Your task to perform on an android device: turn off notifications in google photos Image 0: 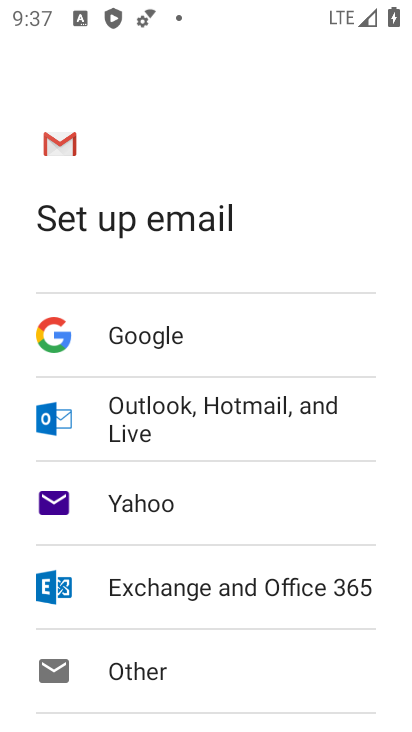
Step 0: press home button
Your task to perform on an android device: turn off notifications in google photos Image 1: 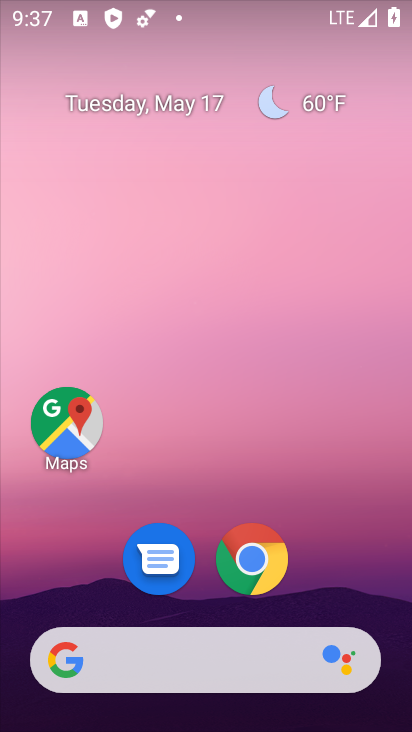
Step 1: drag from (199, 599) to (215, 220)
Your task to perform on an android device: turn off notifications in google photos Image 2: 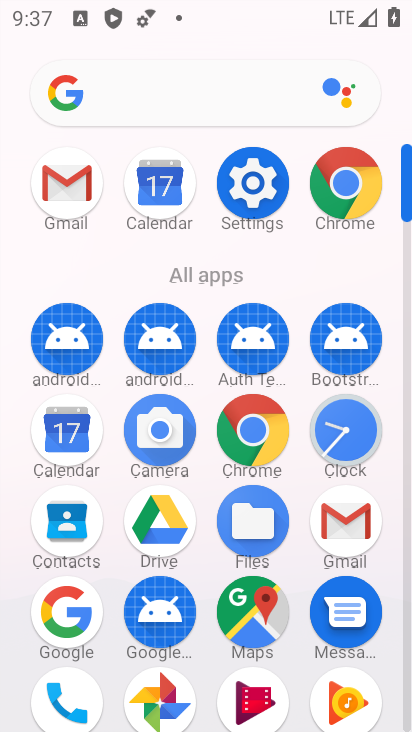
Step 2: click (164, 713)
Your task to perform on an android device: turn off notifications in google photos Image 3: 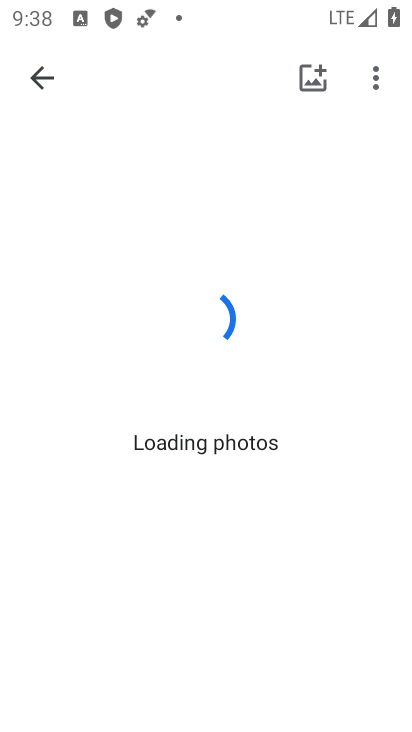
Step 3: click (45, 57)
Your task to perform on an android device: turn off notifications in google photos Image 4: 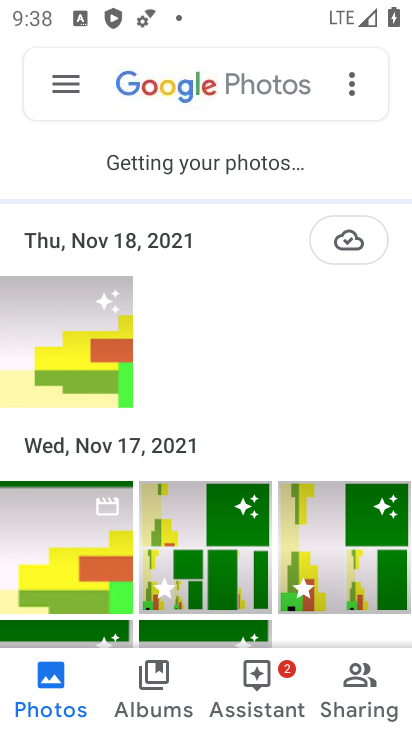
Step 4: click (69, 78)
Your task to perform on an android device: turn off notifications in google photos Image 5: 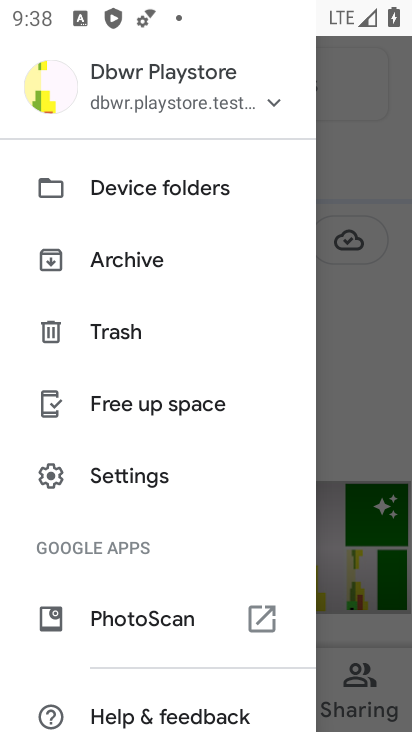
Step 5: drag from (121, 627) to (166, 388)
Your task to perform on an android device: turn off notifications in google photos Image 6: 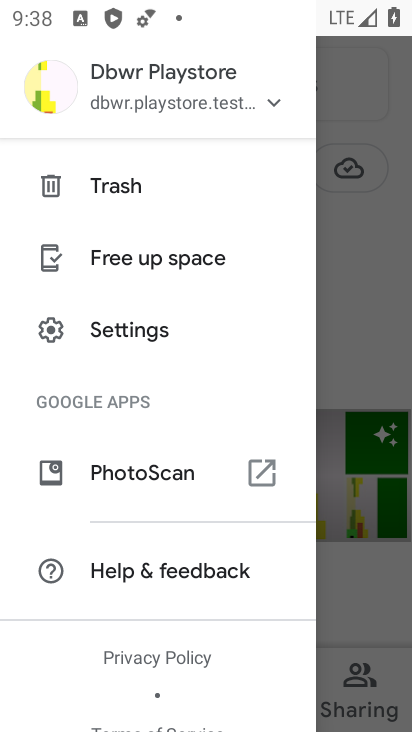
Step 6: drag from (155, 544) to (173, 355)
Your task to perform on an android device: turn off notifications in google photos Image 7: 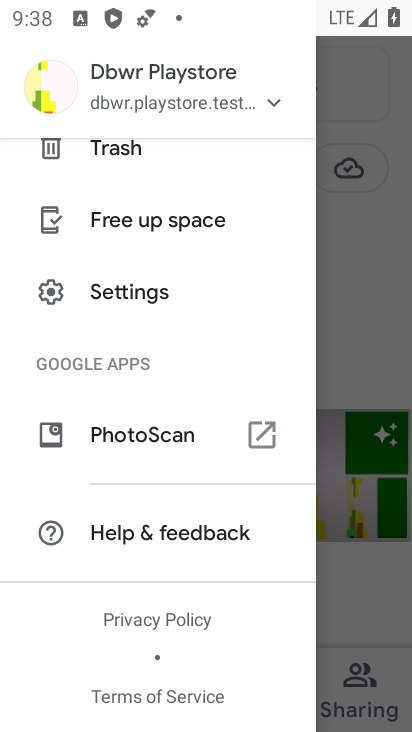
Step 7: click (140, 287)
Your task to perform on an android device: turn off notifications in google photos Image 8: 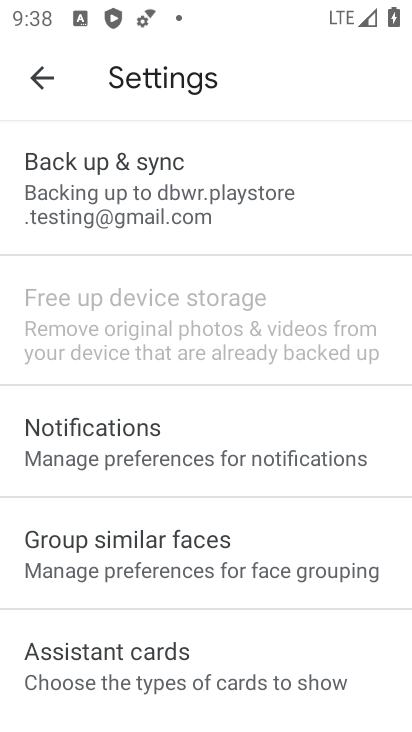
Step 8: drag from (191, 602) to (232, 265)
Your task to perform on an android device: turn off notifications in google photos Image 9: 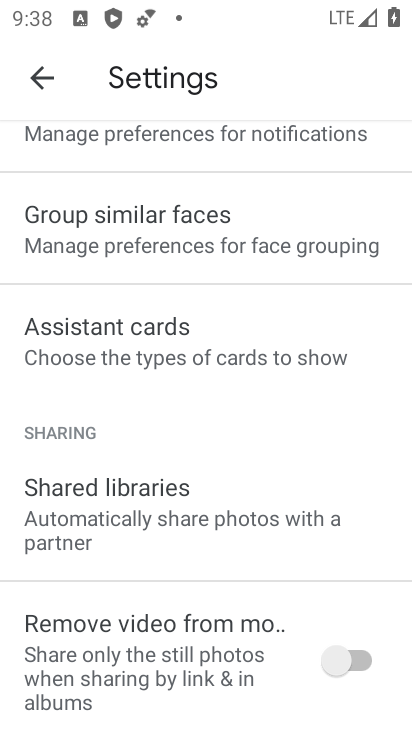
Step 9: drag from (170, 571) to (222, 239)
Your task to perform on an android device: turn off notifications in google photos Image 10: 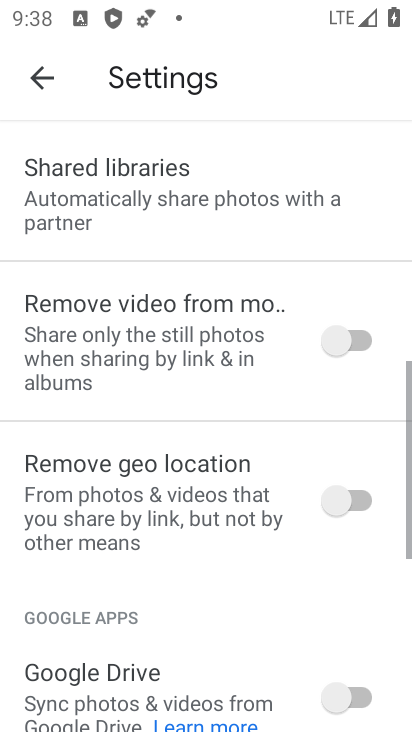
Step 10: drag from (172, 585) to (199, 349)
Your task to perform on an android device: turn off notifications in google photos Image 11: 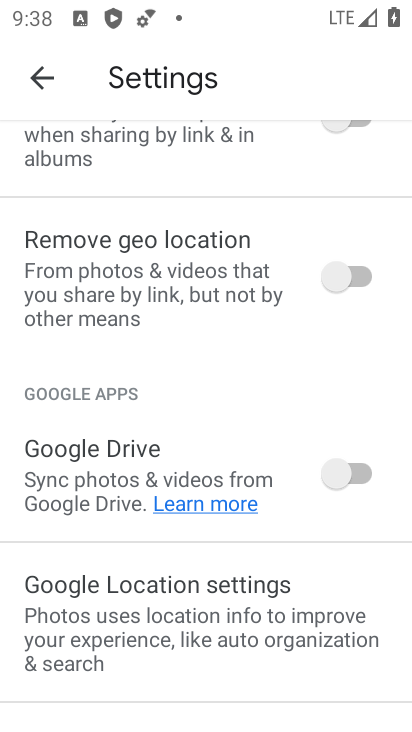
Step 11: drag from (203, 471) to (244, 292)
Your task to perform on an android device: turn off notifications in google photos Image 12: 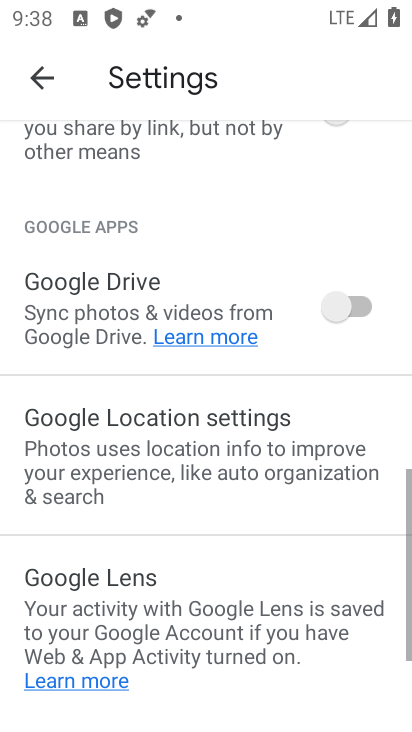
Step 12: drag from (197, 278) to (200, 481)
Your task to perform on an android device: turn off notifications in google photos Image 13: 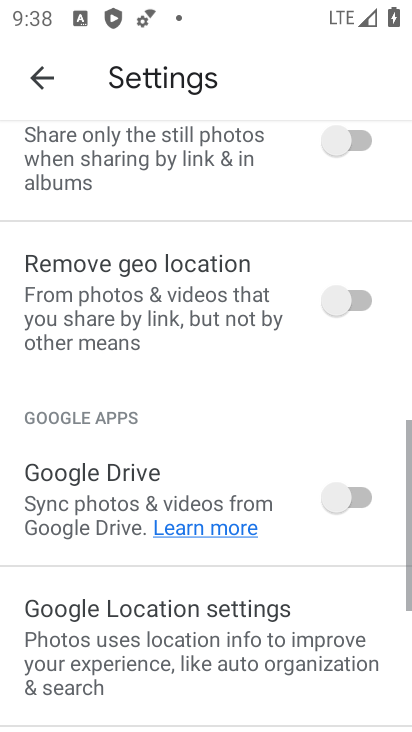
Step 13: drag from (138, 209) to (149, 430)
Your task to perform on an android device: turn off notifications in google photos Image 14: 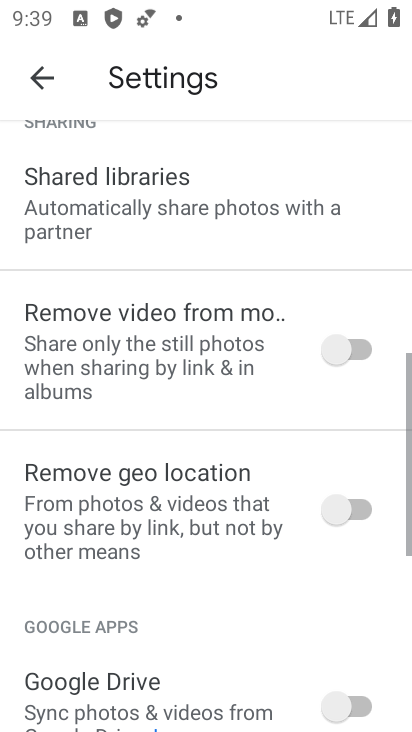
Step 14: drag from (151, 276) to (175, 464)
Your task to perform on an android device: turn off notifications in google photos Image 15: 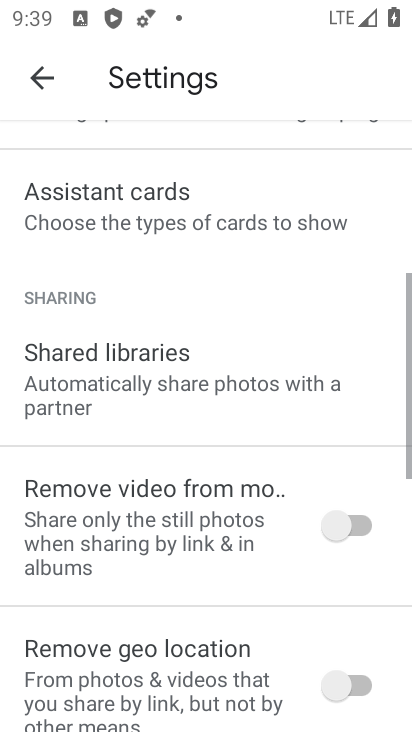
Step 15: drag from (158, 232) to (158, 527)
Your task to perform on an android device: turn off notifications in google photos Image 16: 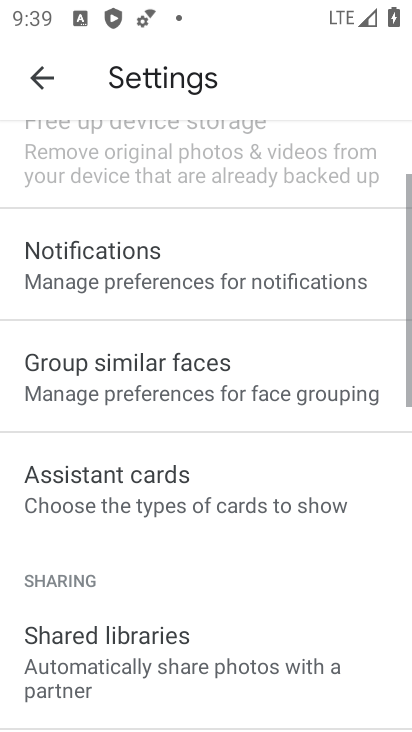
Step 16: drag from (148, 280) to (148, 516)
Your task to perform on an android device: turn off notifications in google photos Image 17: 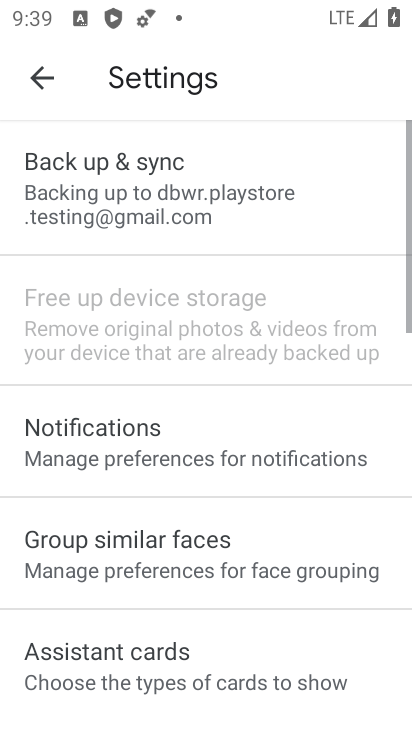
Step 17: drag from (156, 272) to (164, 342)
Your task to perform on an android device: turn off notifications in google photos Image 18: 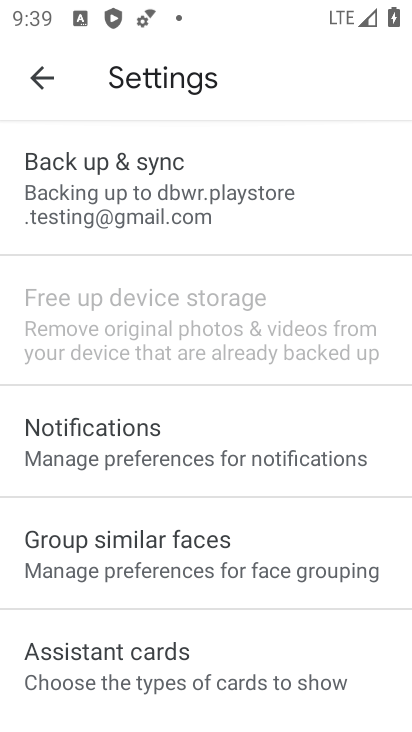
Step 18: click (157, 404)
Your task to perform on an android device: turn off notifications in google photos Image 19: 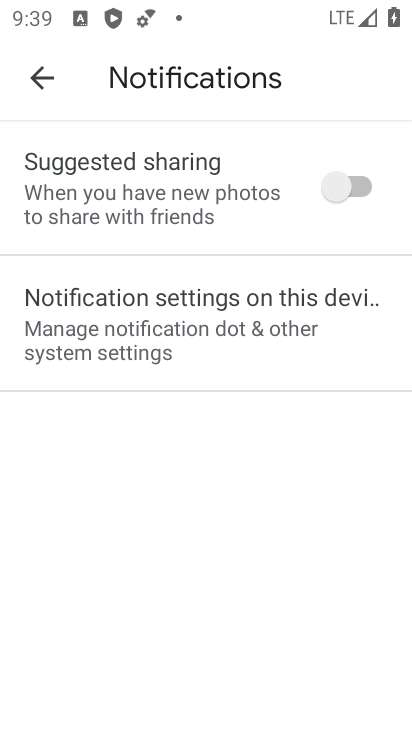
Step 19: click (133, 367)
Your task to perform on an android device: turn off notifications in google photos Image 20: 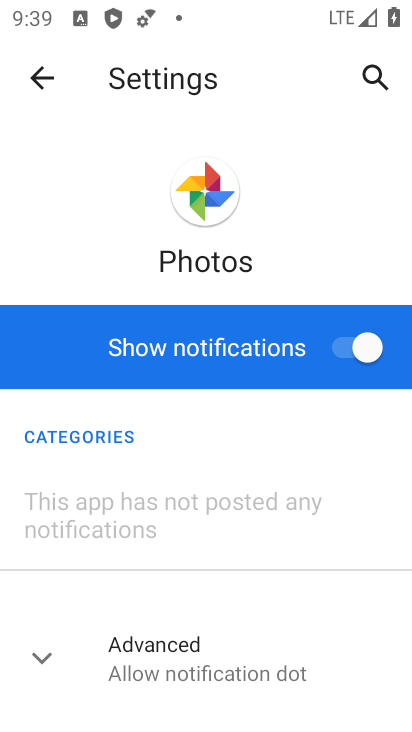
Step 20: click (334, 335)
Your task to perform on an android device: turn off notifications in google photos Image 21: 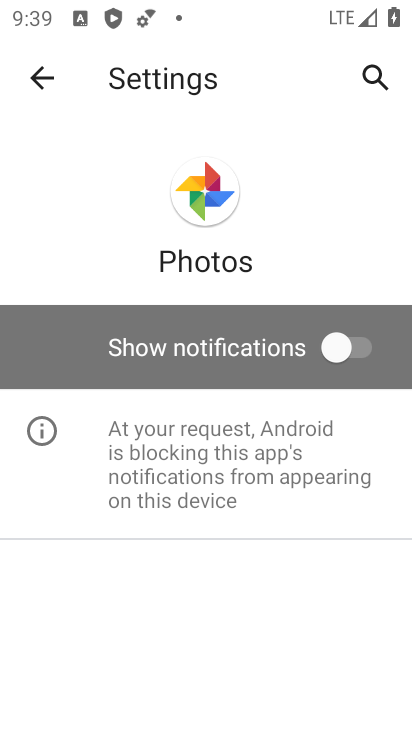
Step 21: task complete